Your task to perform on an android device: Go to Maps Image 0: 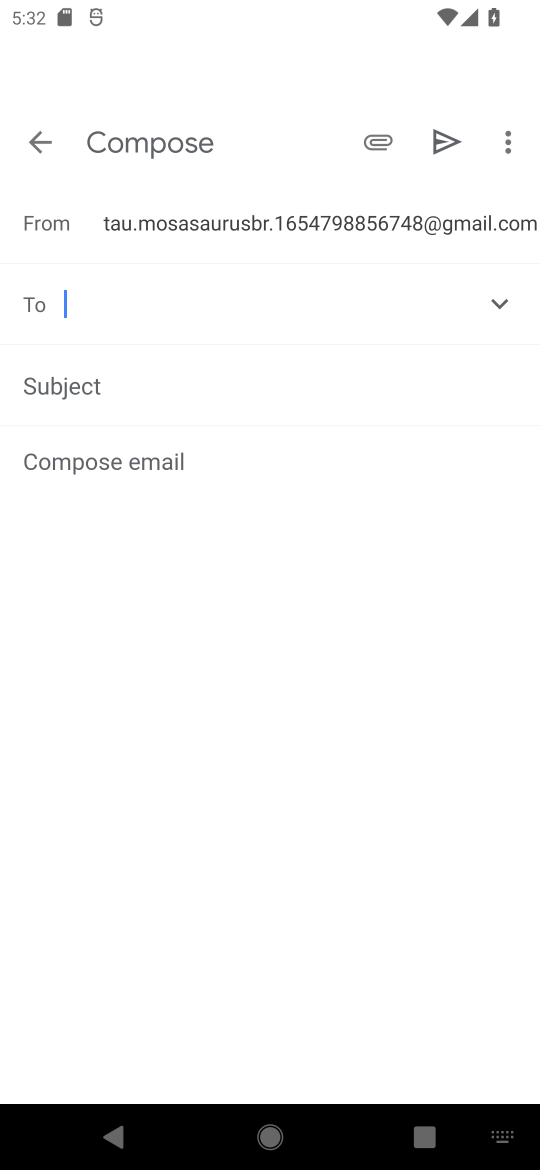
Step 0: press home button
Your task to perform on an android device: Go to Maps Image 1: 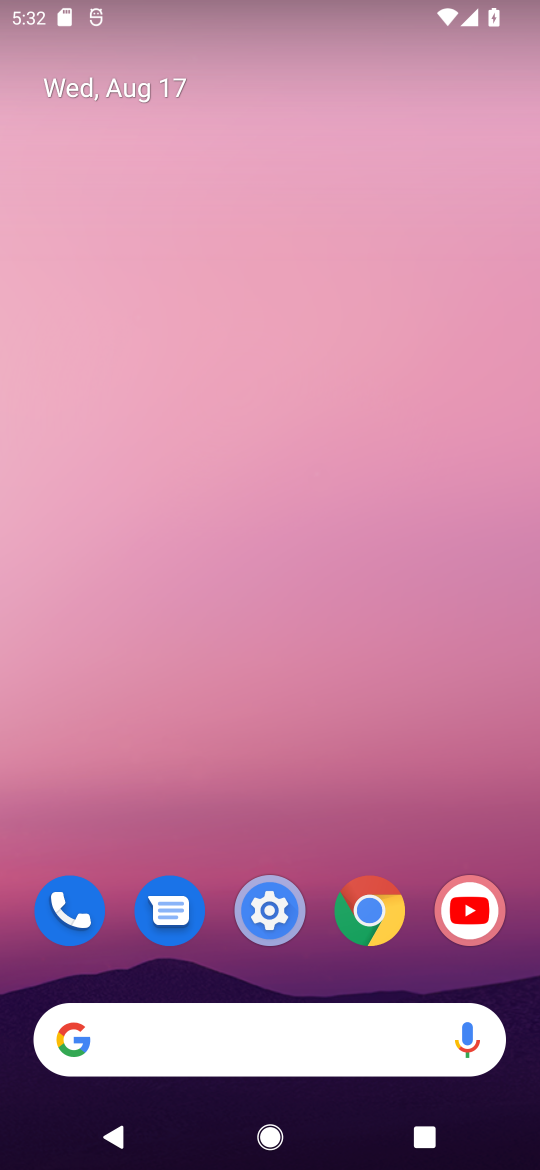
Step 1: drag from (270, 809) to (368, 193)
Your task to perform on an android device: Go to Maps Image 2: 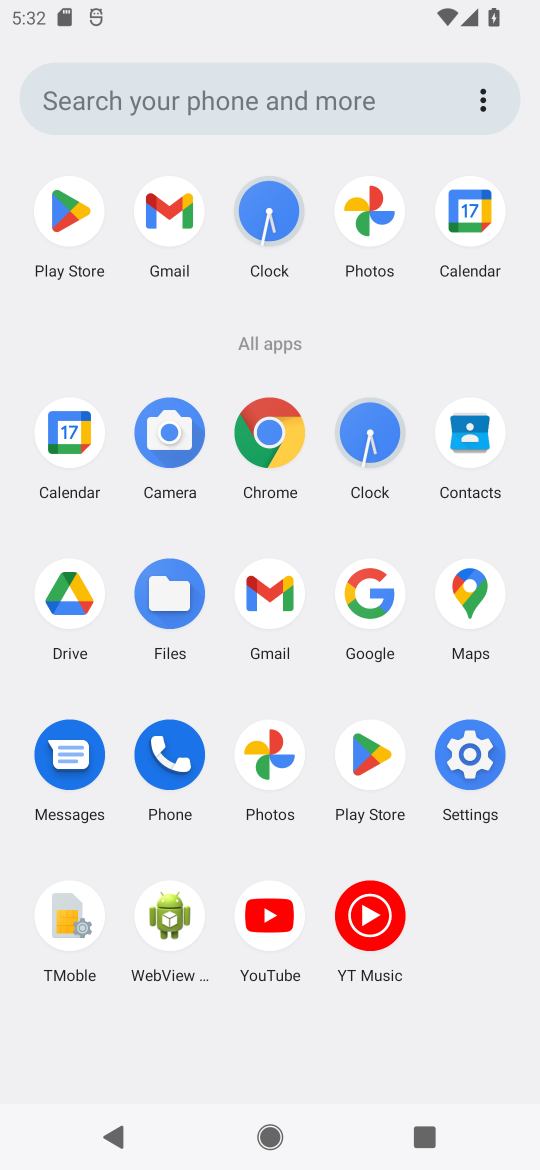
Step 2: click (487, 587)
Your task to perform on an android device: Go to Maps Image 3: 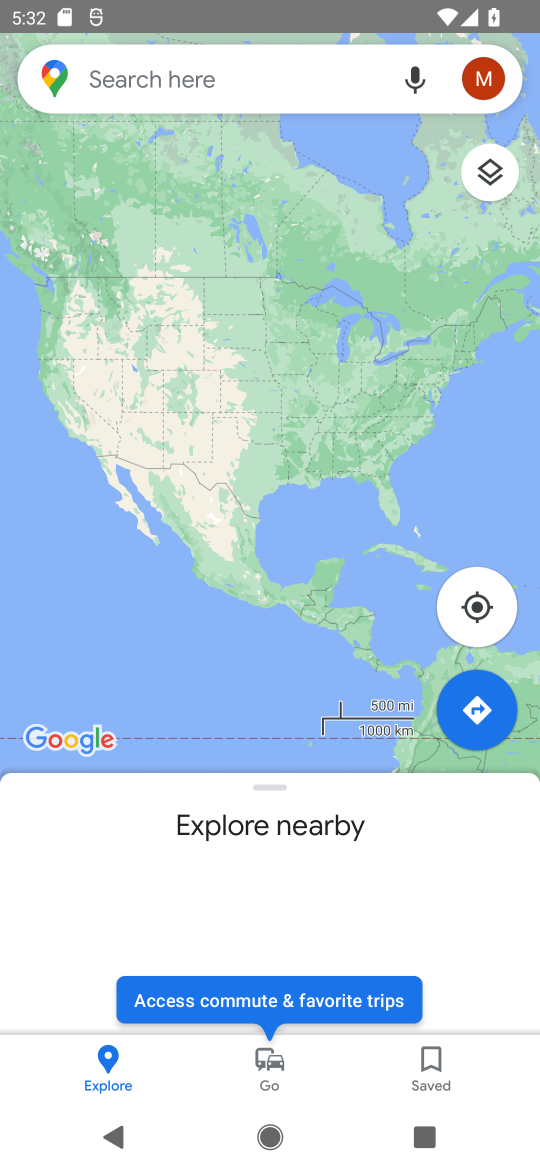
Step 3: task complete